Your task to perform on an android device: Open Google Chrome and open the bookmarks view Image 0: 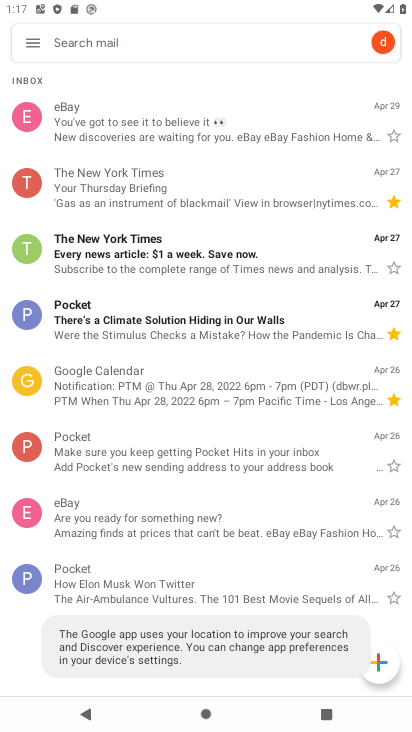
Step 0: drag from (280, 550) to (301, 319)
Your task to perform on an android device: Open Google Chrome and open the bookmarks view Image 1: 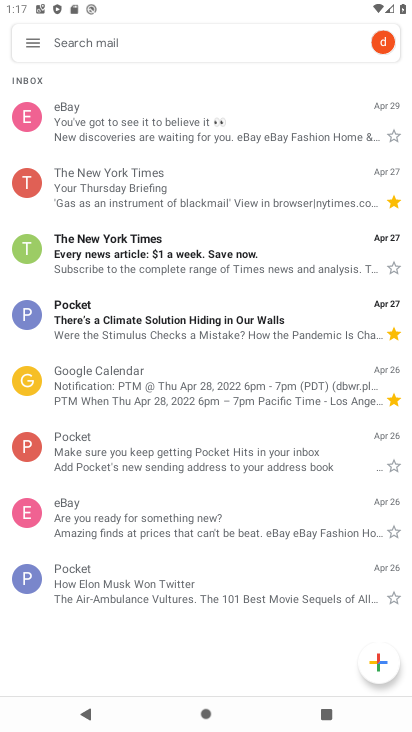
Step 1: press home button
Your task to perform on an android device: Open Google Chrome and open the bookmarks view Image 2: 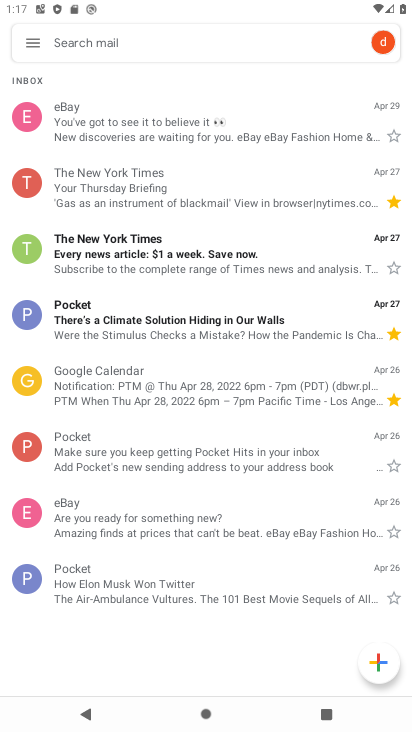
Step 2: press home button
Your task to perform on an android device: Open Google Chrome and open the bookmarks view Image 3: 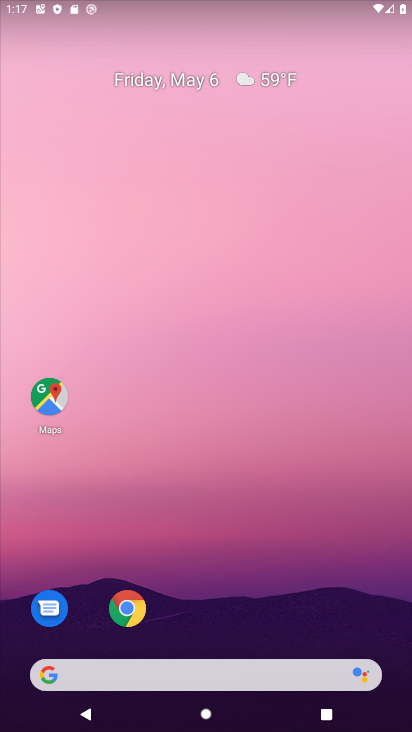
Step 3: click (135, 613)
Your task to perform on an android device: Open Google Chrome and open the bookmarks view Image 4: 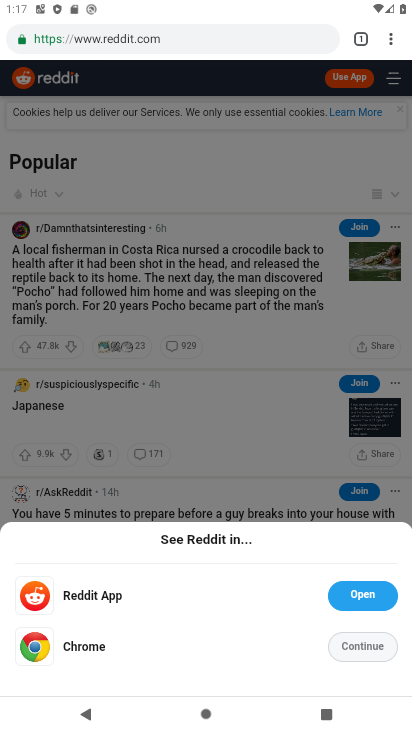
Step 4: task complete